Your task to perform on an android device: turn off priority inbox in the gmail app Image 0: 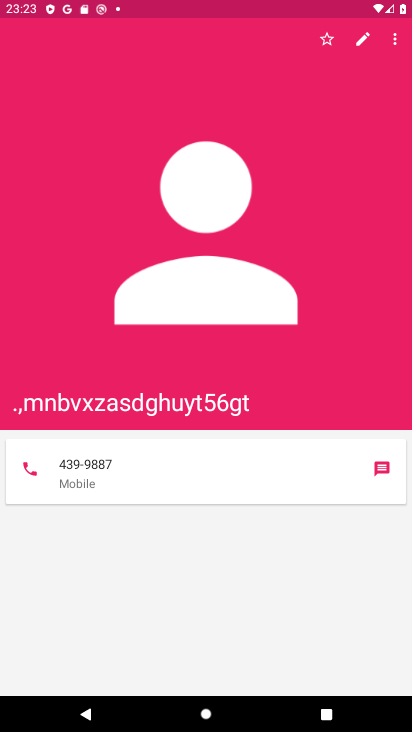
Step 0: press home button
Your task to perform on an android device: turn off priority inbox in the gmail app Image 1: 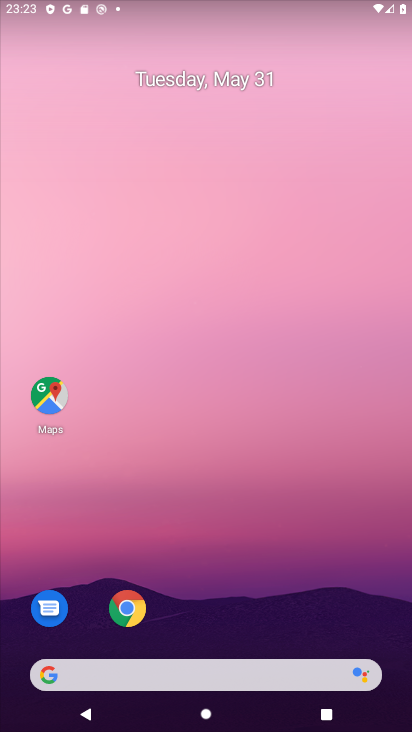
Step 1: drag from (220, 626) to (396, 11)
Your task to perform on an android device: turn off priority inbox in the gmail app Image 2: 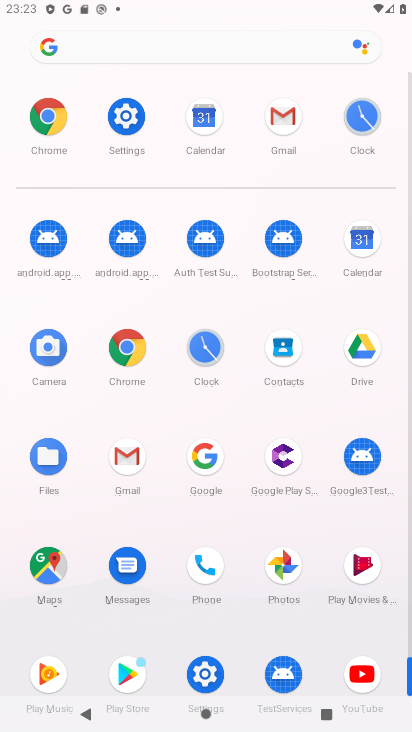
Step 2: click (287, 105)
Your task to perform on an android device: turn off priority inbox in the gmail app Image 3: 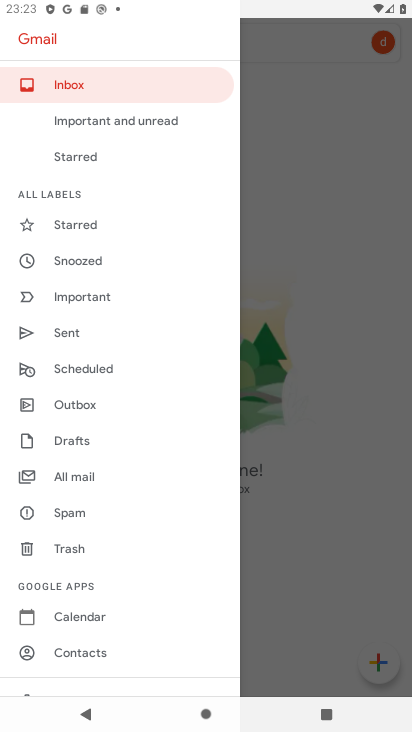
Step 3: drag from (77, 620) to (174, 240)
Your task to perform on an android device: turn off priority inbox in the gmail app Image 4: 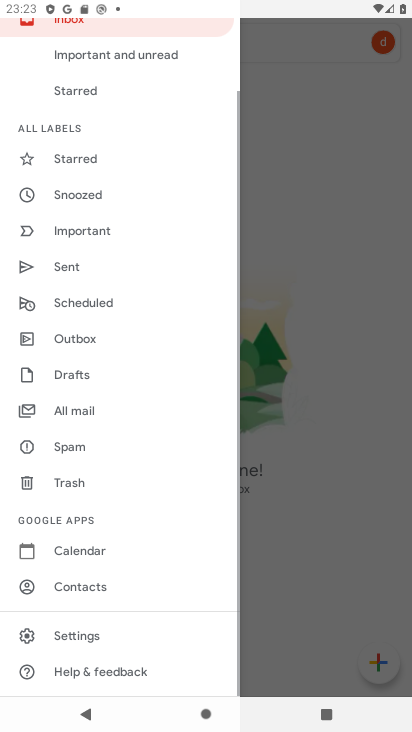
Step 4: click (85, 631)
Your task to perform on an android device: turn off priority inbox in the gmail app Image 5: 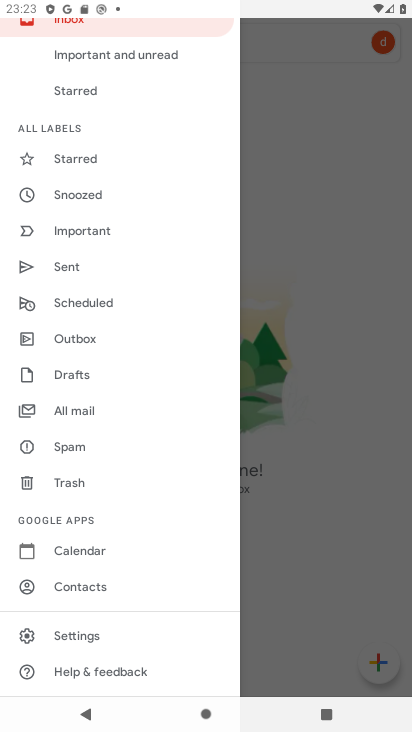
Step 5: click (82, 631)
Your task to perform on an android device: turn off priority inbox in the gmail app Image 6: 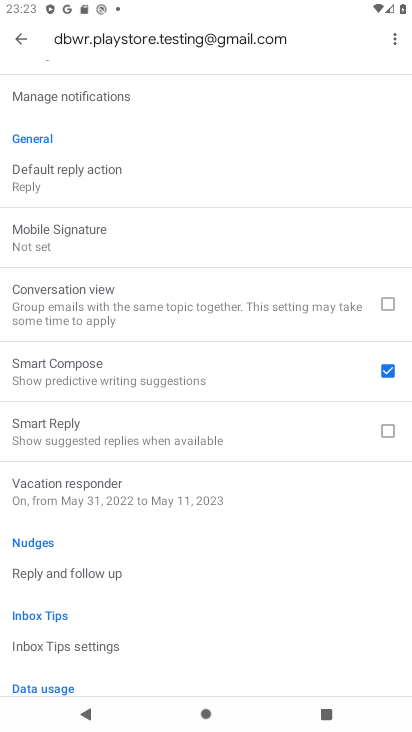
Step 6: drag from (126, 249) to (176, 709)
Your task to perform on an android device: turn off priority inbox in the gmail app Image 7: 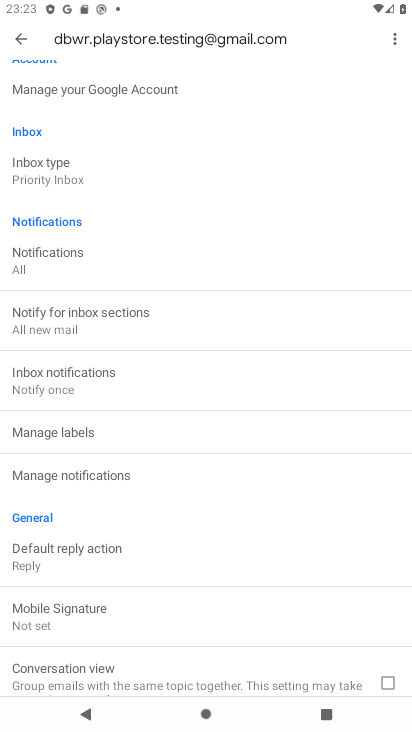
Step 7: click (68, 180)
Your task to perform on an android device: turn off priority inbox in the gmail app Image 8: 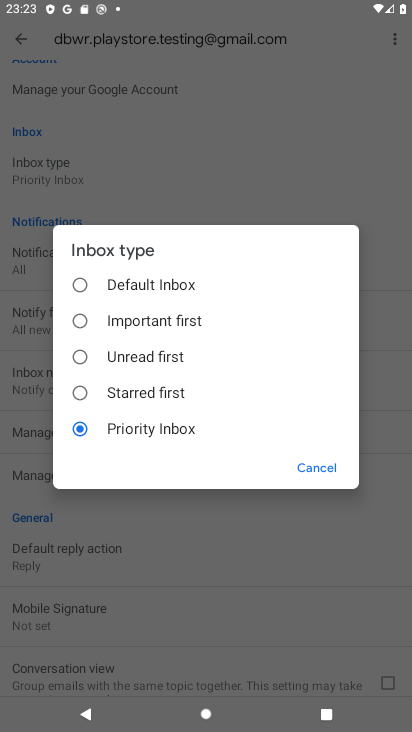
Step 8: click (151, 287)
Your task to perform on an android device: turn off priority inbox in the gmail app Image 9: 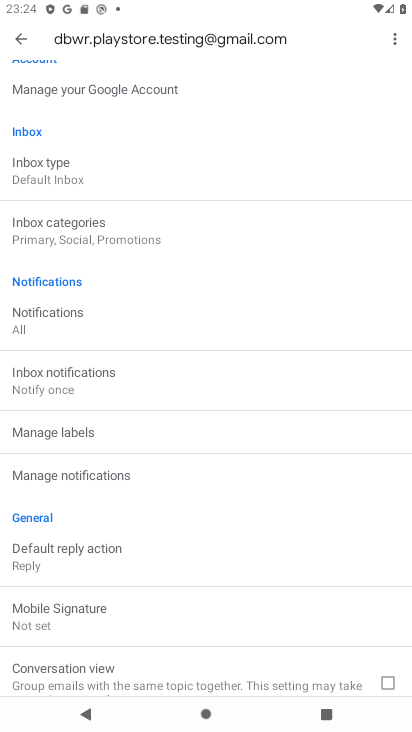
Step 9: task complete